Your task to perform on an android device: Go to display settings Image 0: 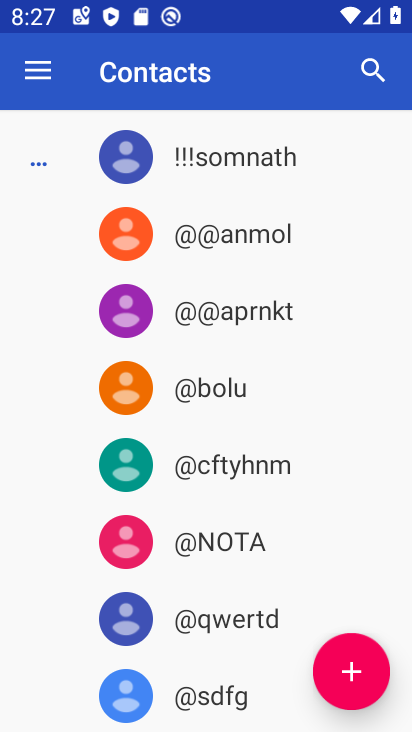
Step 0: press home button
Your task to perform on an android device: Go to display settings Image 1: 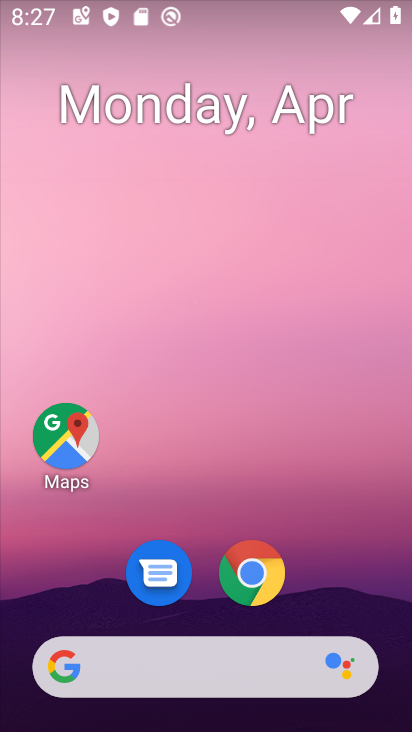
Step 1: drag from (207, 511) to (235, 5)
Your task to perform on an android device: Go to display settings Image 2: 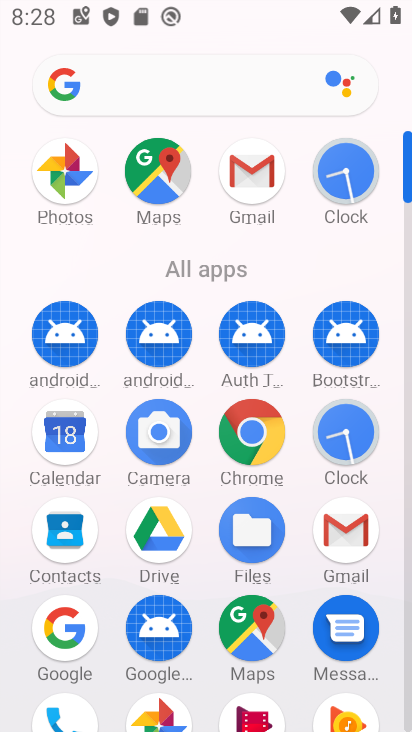
Step 2: drag from (217, 433) to (196, 95)
Your task to perform on an android device: Go to display settings Image 3: 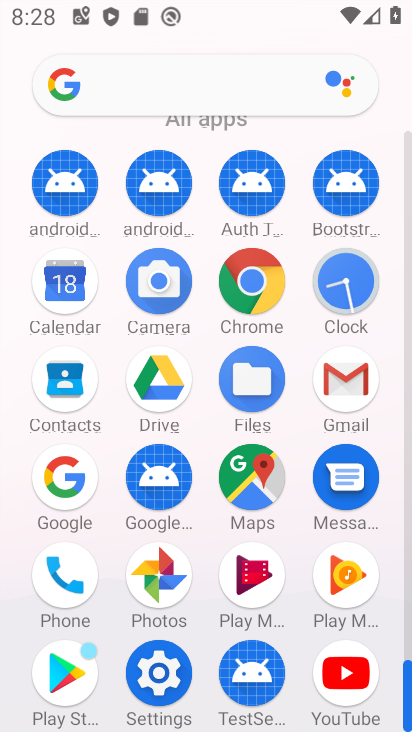
Step 3: click (159, 663)
Your task to perform on an android device: Go to display settings Image 4: 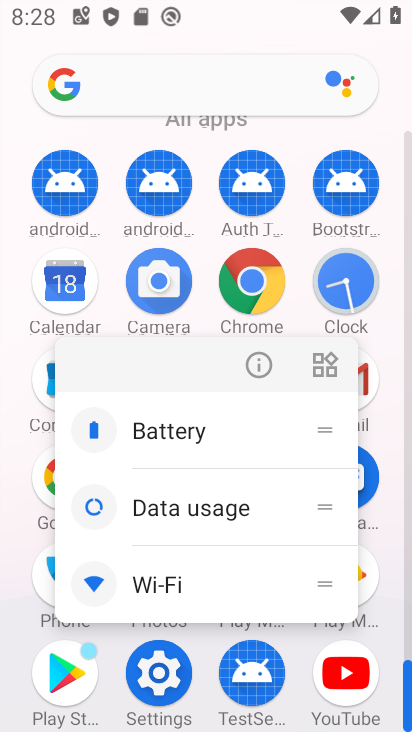
Step 4: click (158, 678)
Your task to perform on an android device: Go to display settings Image 5: 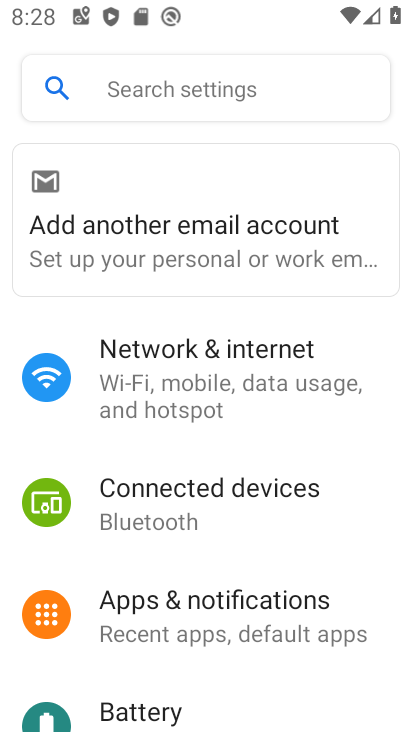
Step 5: drag from (221, 666) to (176, 169)
Your task to perform on an android device: Go to display settings Image 6: 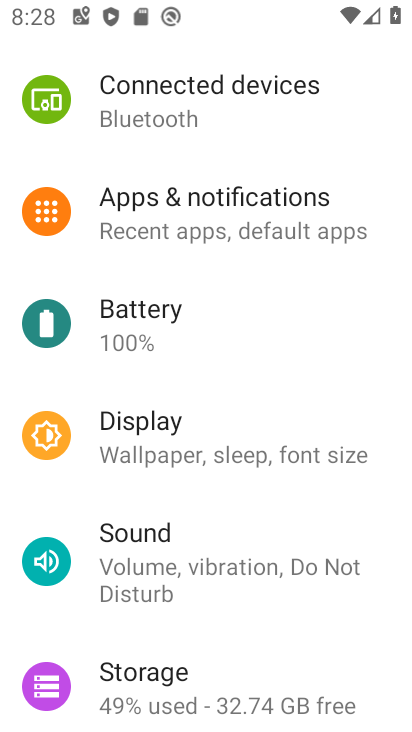
Step 6: click (144, 427)
Your task to perform on an android device: Go to display settings Image 7: 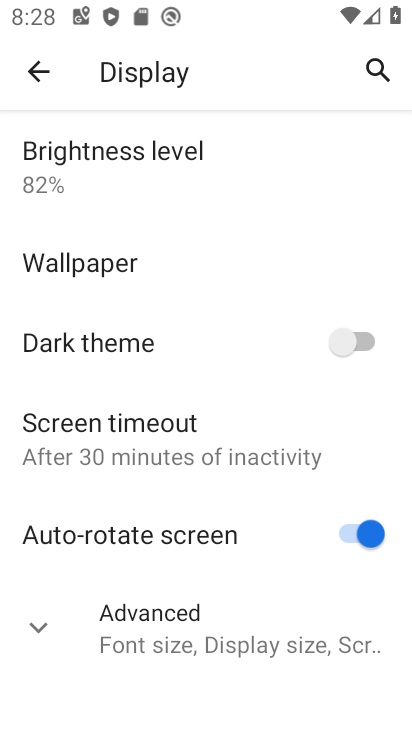
Step 7: task complete